Your task to perform on an android device: Go to internet settings Image 0: 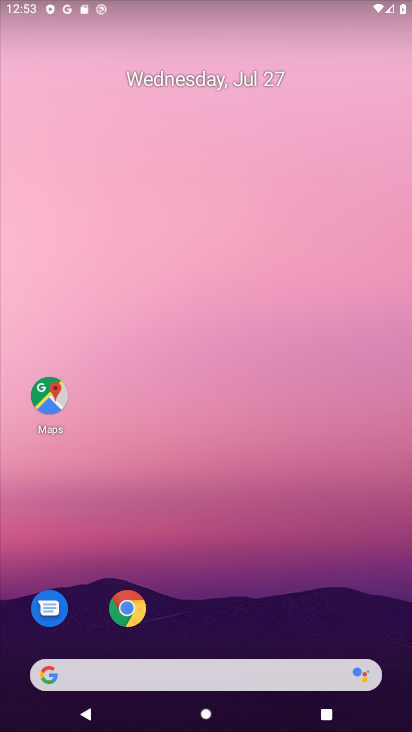
Step 0: drag from (184, 223) to (225, 41)
Your task to perform on an android device: Go to internet settings Image 1: 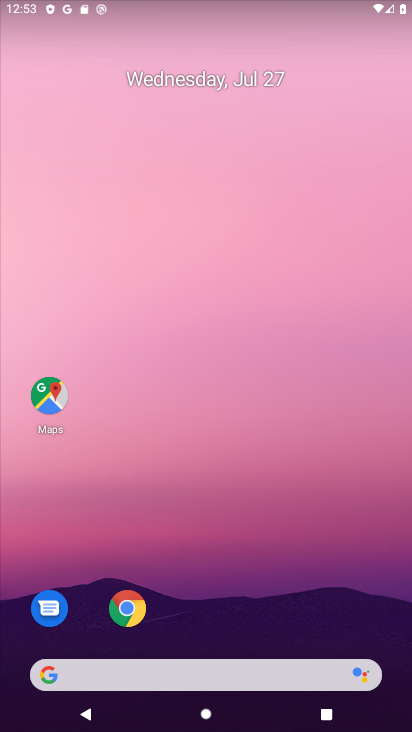
Step 1: click (227, 126)
Your task to perform on an android device: Go to internet settings Image 2: 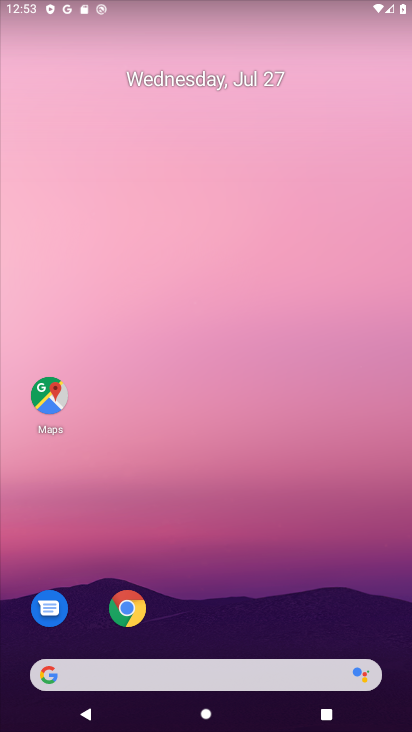
Step 2: click (226, 24)
Your task to perform on an android device: Go to internet settings Image 3: 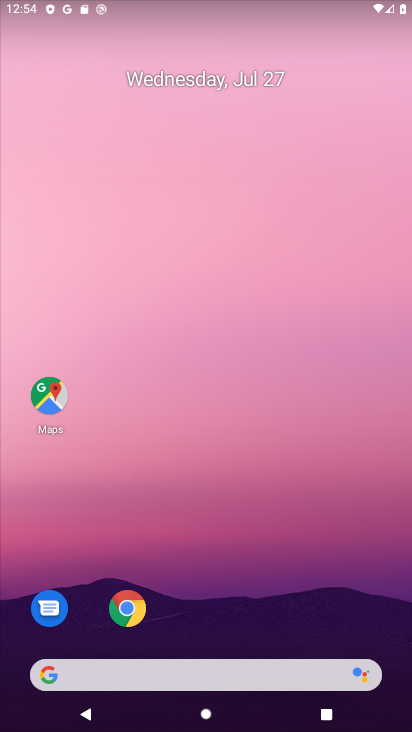
Step 3: drag from (185, 383) to (214, 71)
Your task to perform on an android device: Go to internet settings Image 4: 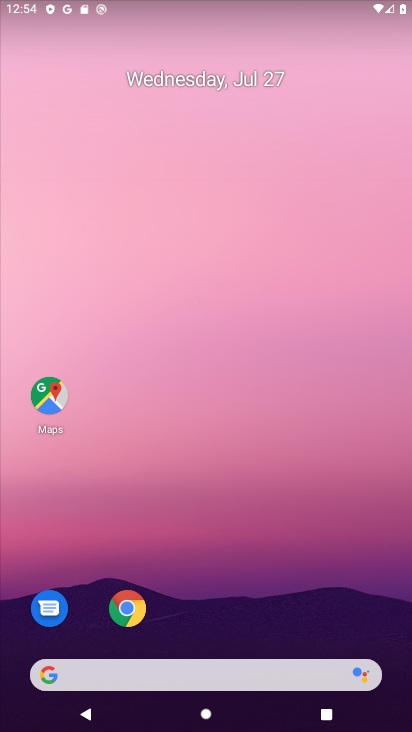
Step 4: drag from (224, 347) to (264, 25)
Your task to perform on an android device: Go to internet settings Image 5: 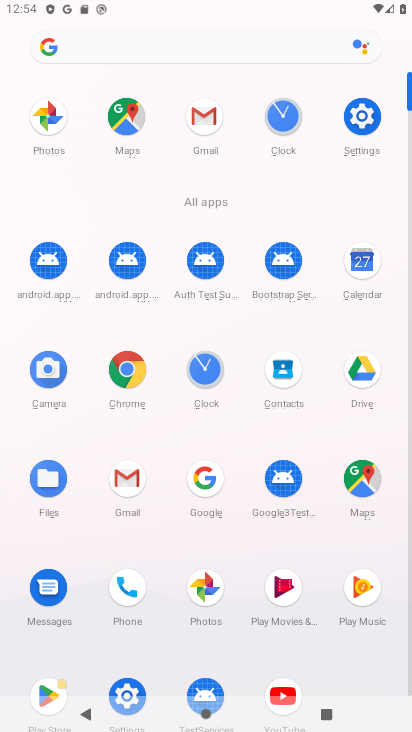
Step 5: click (124, 689)
Your task to perform on an android device: Go to internet settings Image 6: 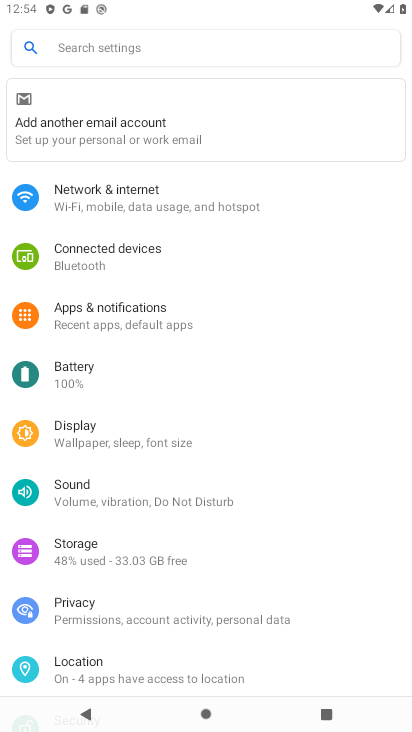
Step 6: click (238, 199)
Your task to perform on an android device: Go to internet settings Image 7: 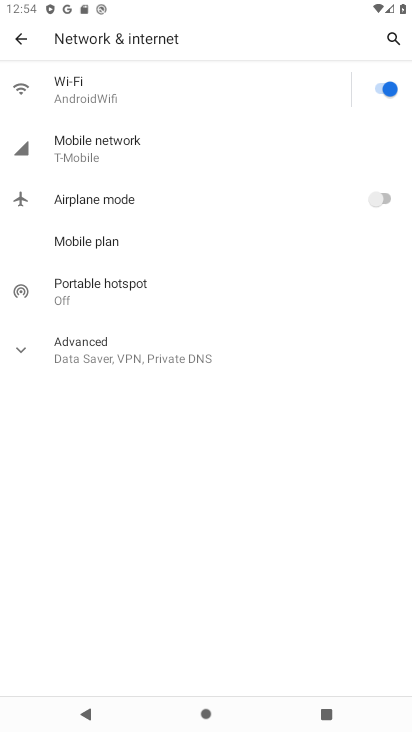
Step 7: task complete